Your task to perform on an android device: What's on Reddit today Image 0: 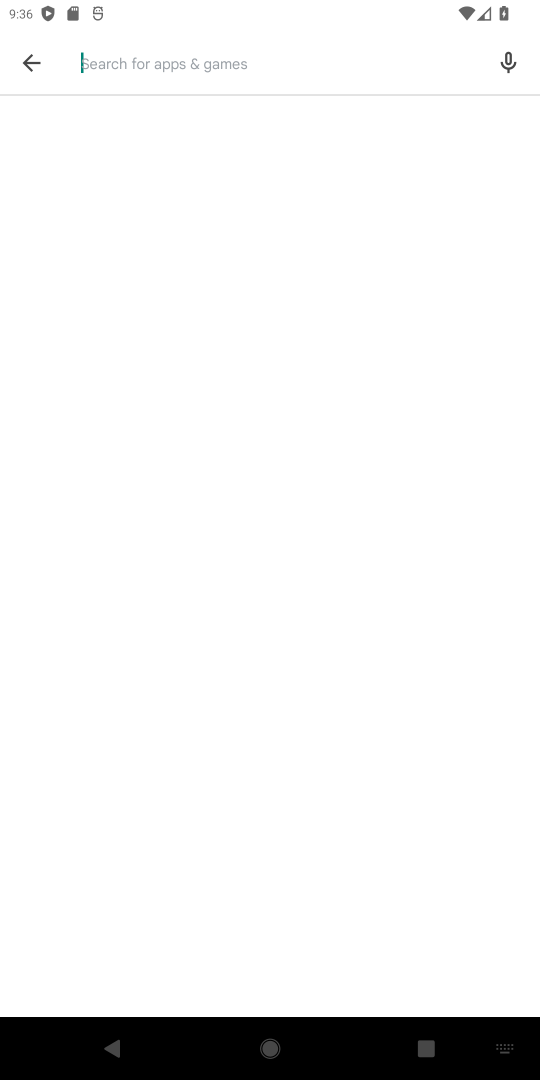
Step 0: press home button
Your task to perform on an android device: What's on Reddit today Image 1: 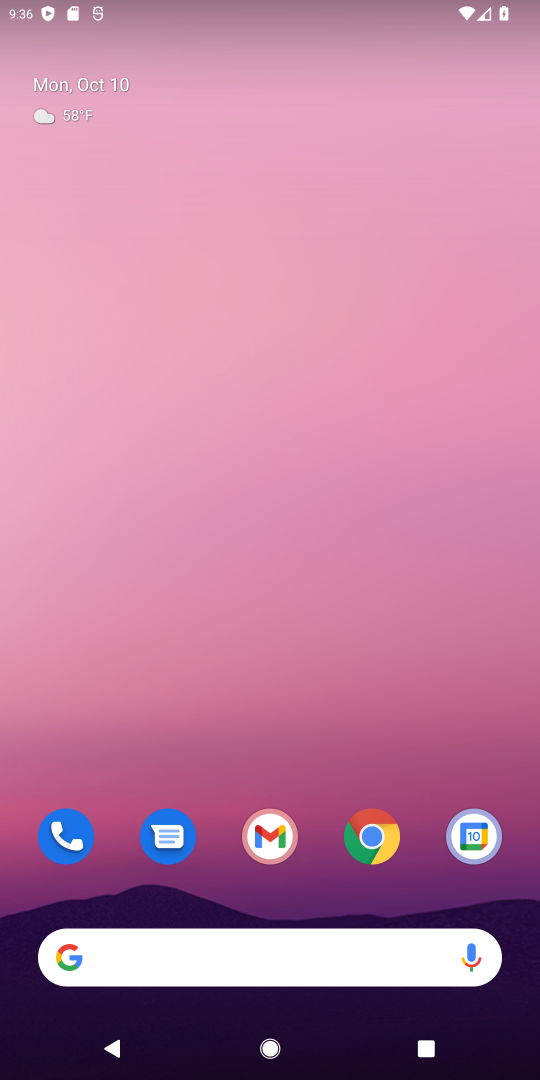
Step 1: drag from (325, 924) to (336, 79)
Your task to perform on an android device: What's on Reddit today Image 2: 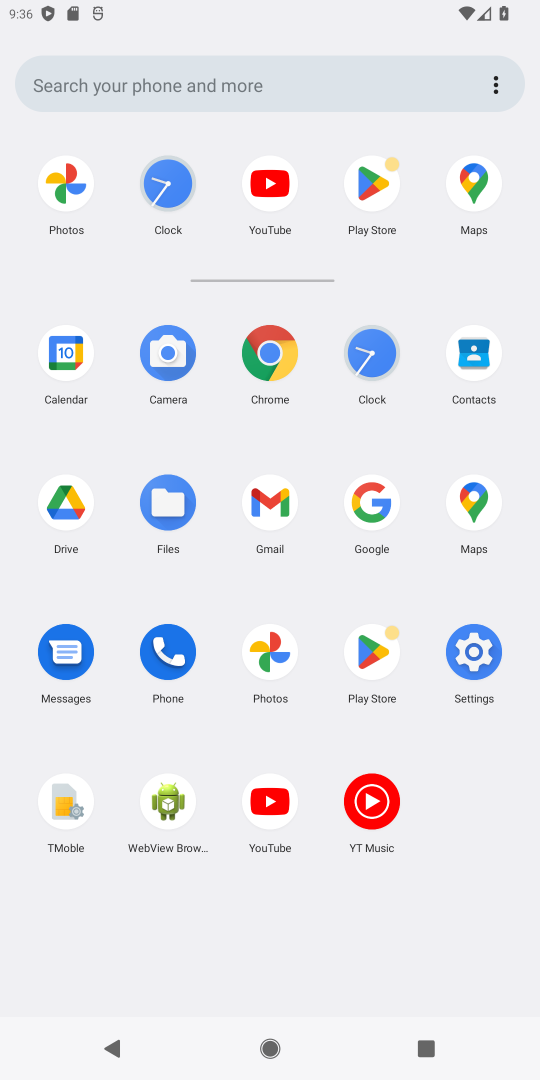
Step 2: click (386, 501)
Your task to perform on an android device: What's on Reddit today Image 3: 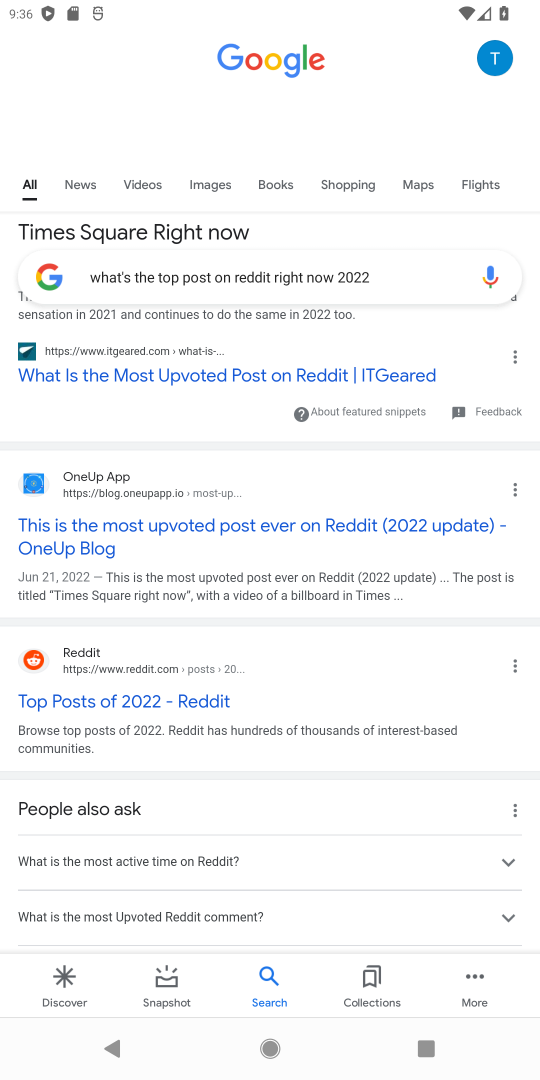
Step 3: click (349, 277)
Your task to perform on an android device: What's on Reddit today Image 4: 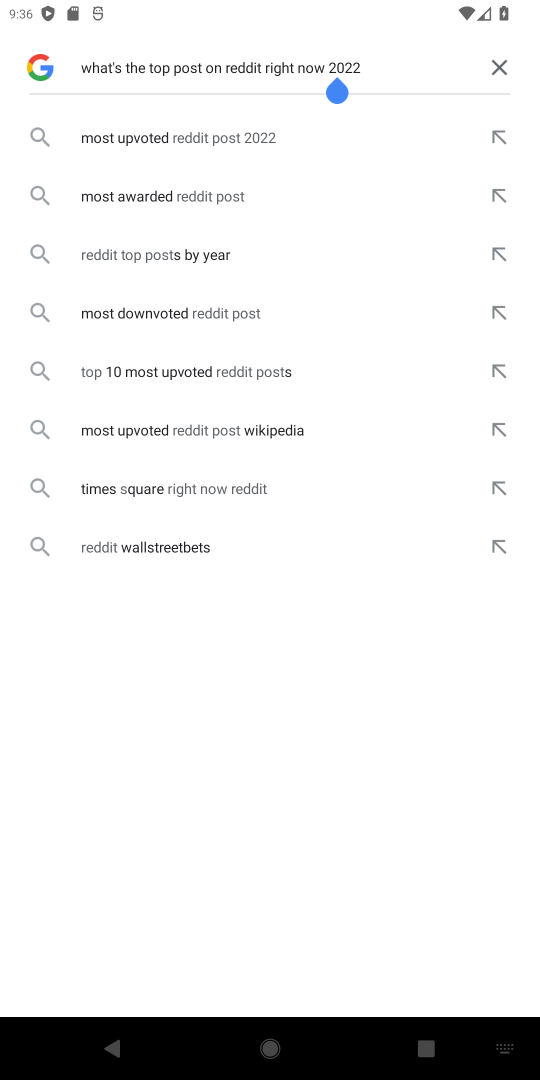
Step 4: click (491, 70)
Your task to perform on an android device: What's on Reddit today Image 5: 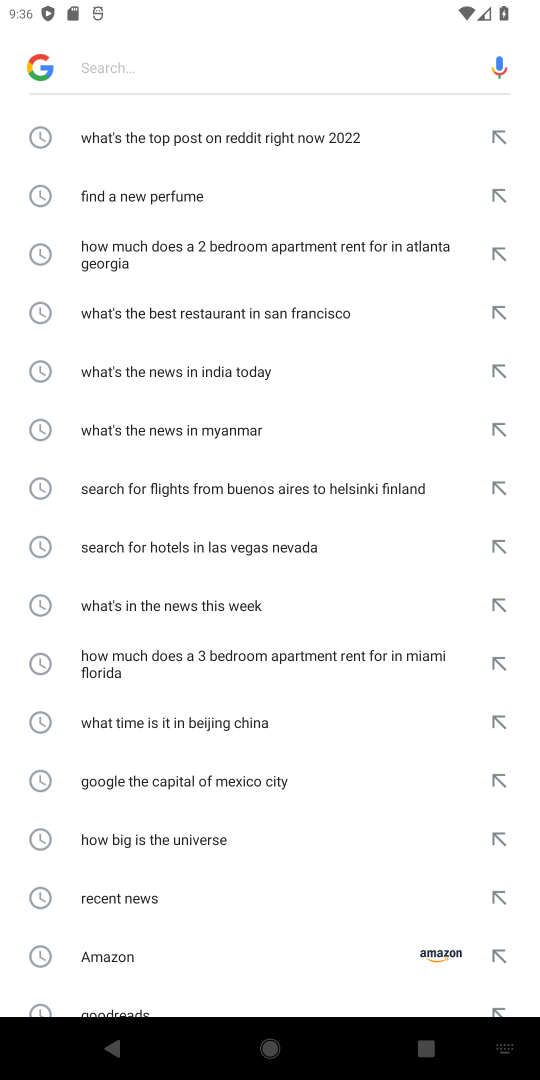
Step 5: type "What's on Reddit today"
Your task to perform on an android device: What's on Reddit today Image 6: 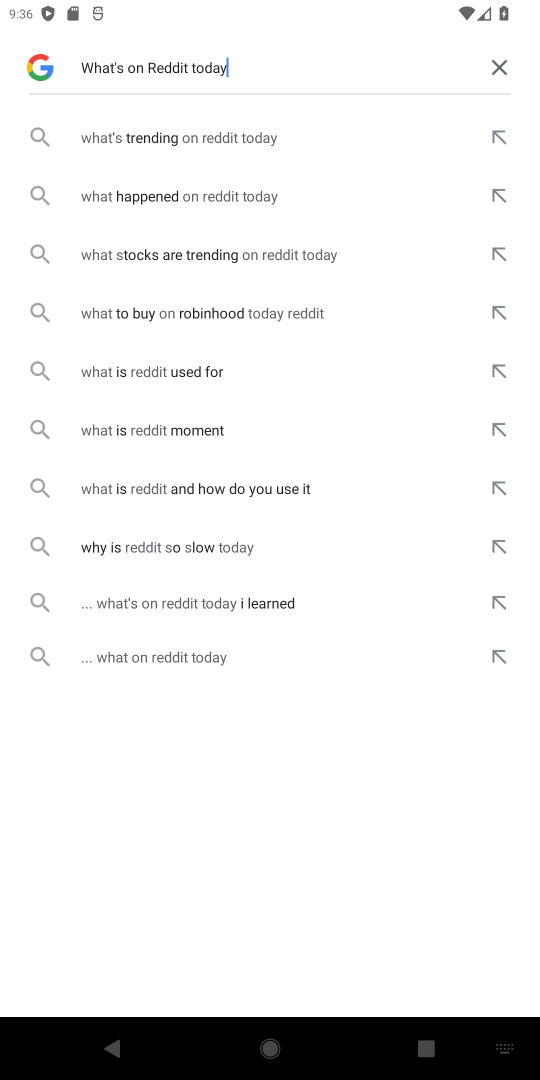
Step 6: click (210, 142)
Your task to perform on an android device: What's on Reddit today Image 7: 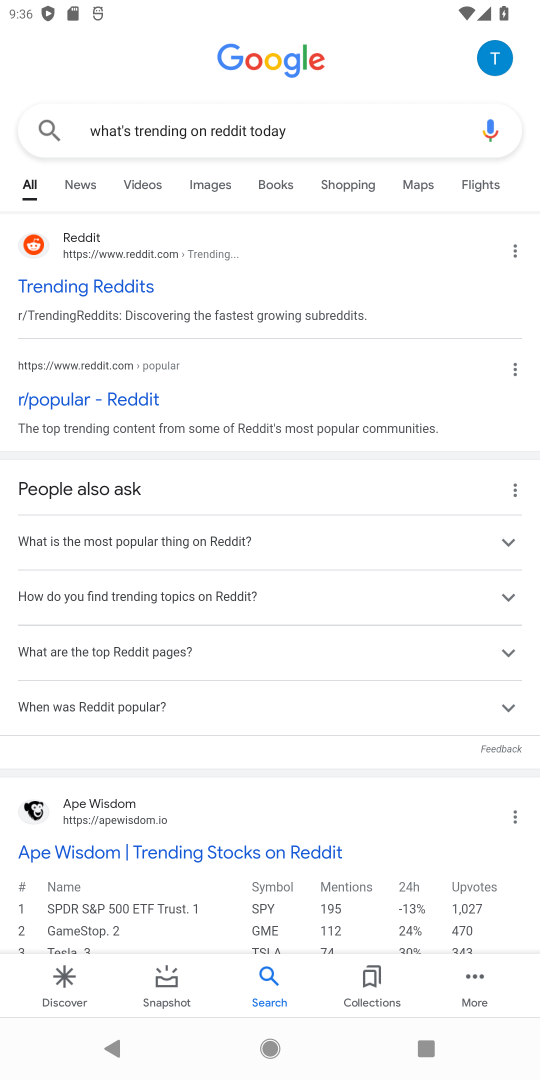
Step 7: click (87, 304)
Your task to perform on an android device: What's on Reddit today Image 8: 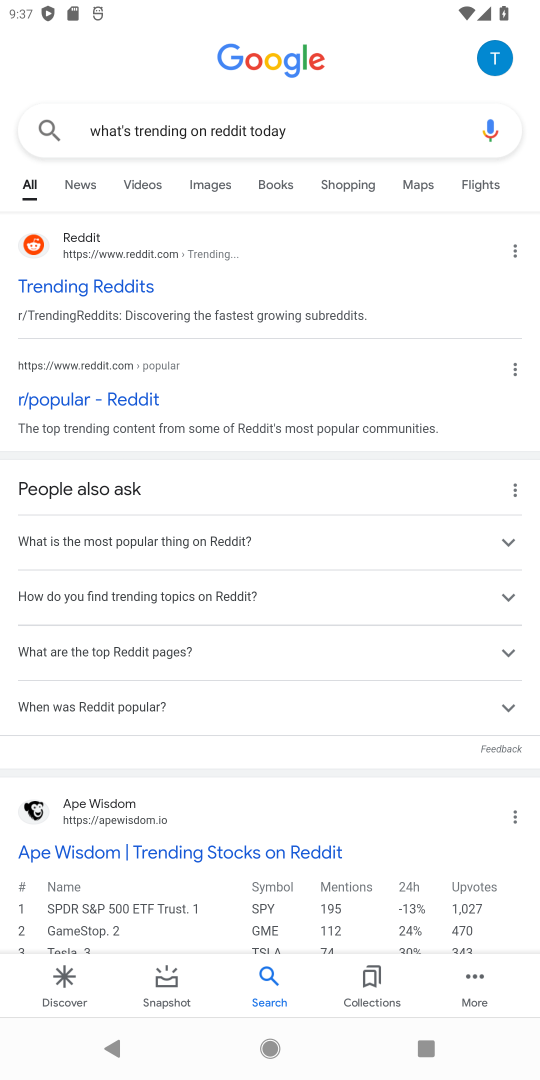
Step 8: click (104, 286)
Your task to perform on an android device: What's on Reddit today Image 9: 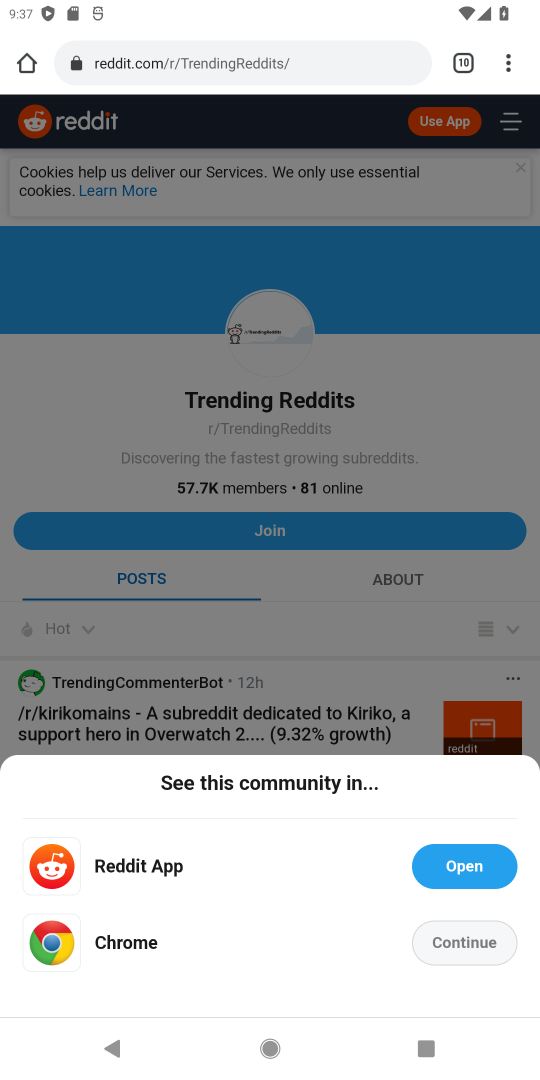
Step 9: click (88, 395)
Your task to perform on an android device: What's on Reddit today Image 10: 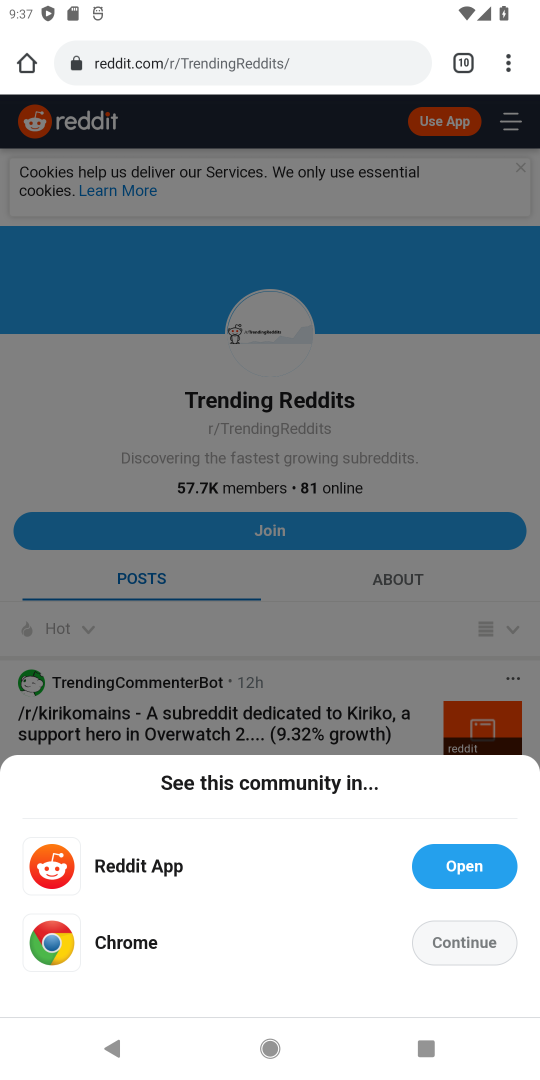
Step 10: task complete